Your task to perform on an android device: Open Google Image 0: 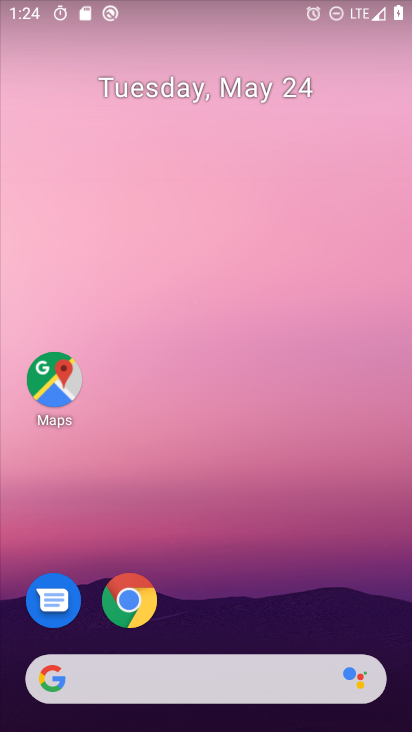
Step 0: drag from (256, 614) to (255, 111)
Your task to perform on an android device: Open Google Image 1: 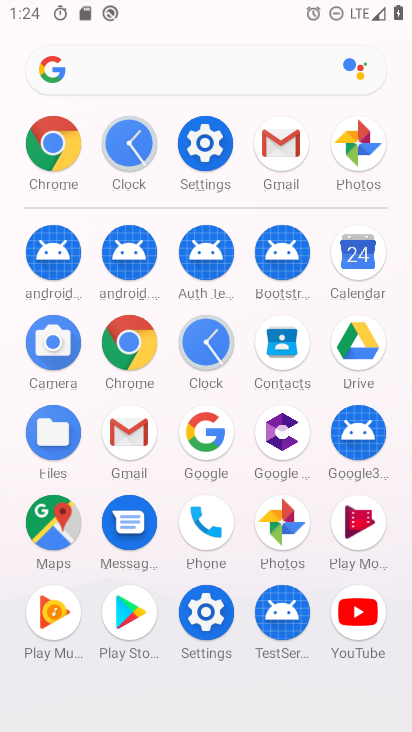
Step 1: click (211, 430)
Your task to perform on an android device: Open Google Image 2: 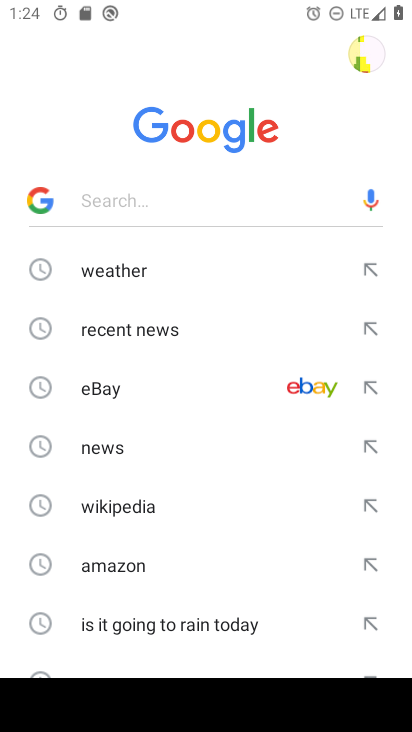
Step 2: task complete